Your task to perform on an android device: Add "razer kraken" to the cart on ebay.com Image 0: 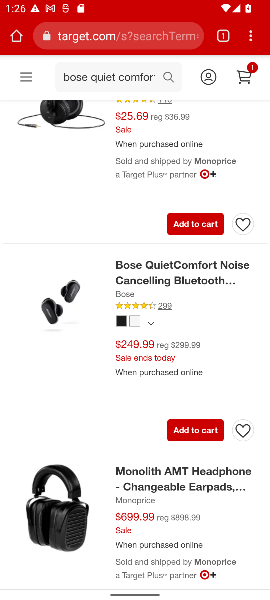
Step 0: click (118, 31)
Your task to perform on an android device: Add "razer kraken" to the cart on ebay.com Image 1: 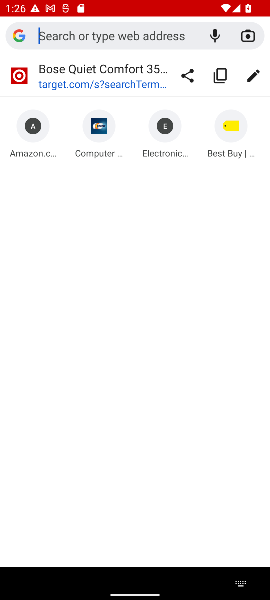
Step 1: type "ebay.com"
Your task to perform on an android device: Add "razer kraken" to the cart on ebay.com Image 2: 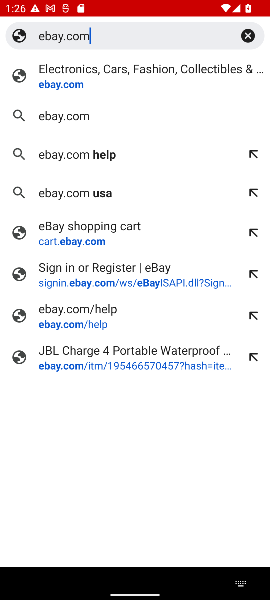
Step 2: click (51, 89)
Your task to perform on an android device: Add "razer kraken" to the cart on ebay.com Image 3: 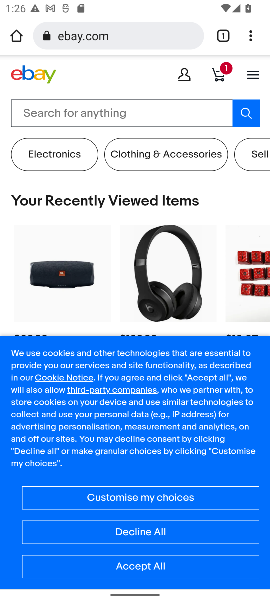
Step 3: click (53, 117)
Your task to perform on an android device: Add "razer kraken" to the cart on ebay.com Image 4: 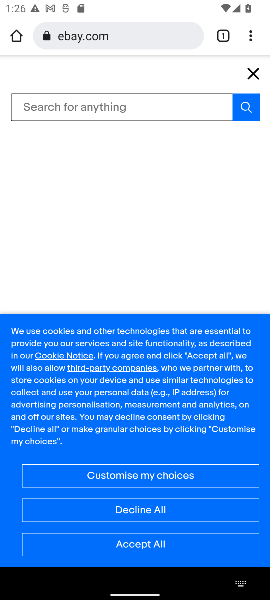
Step 4: type "razer kraken"
Your task to perform on an android device: Add "razer kraken" to the cart on ebay.com Image 5: 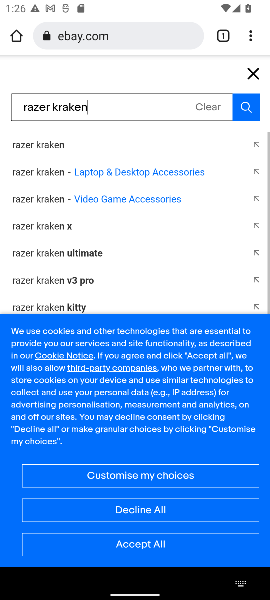
Step 5: click (39, 147)
Your task to perform on an android device: Add "razer kraken" to the cart on ebay.com Image 6: 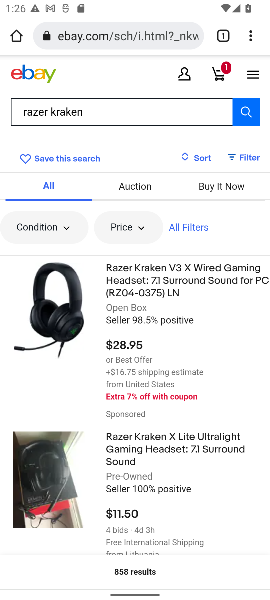
Step 6: click (142, 298)
Your task to perform on an android device: Add "razer kraken" to the cart on ebay.com Image 7: 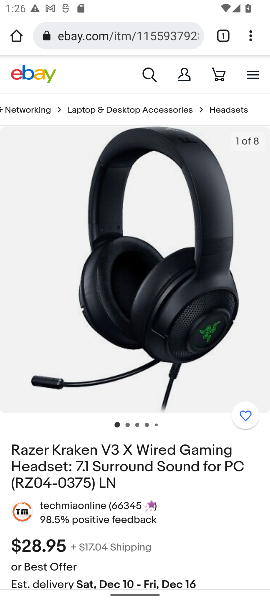
Step 7: drag from (102, 458) to (116, 203)
Your task to perform on an android device: Add "razer kraken" to the cart on ebay.com Image 8: 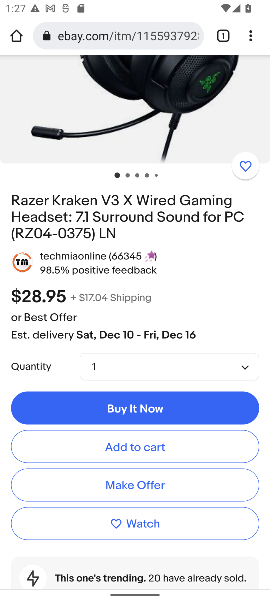
Step 8: click (105, 452)
Your task to perform on an android device: Add "razer kraken" to the cart on ebay.com Image 9: 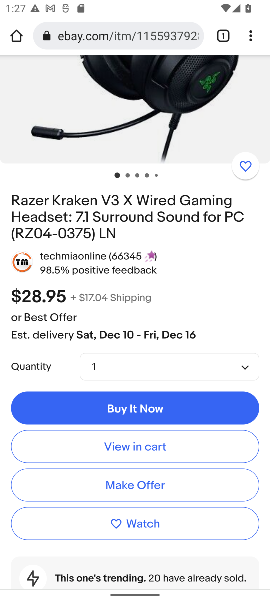
Step 9: task complete